Your task to perform on an android device: Open my contact list Image 0: 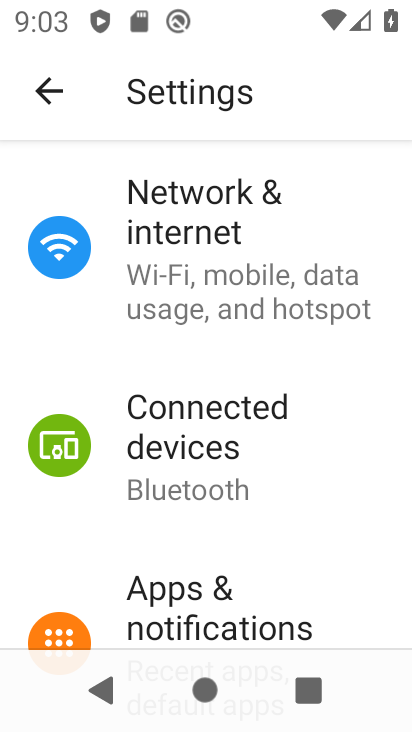
Step 0: press home button
Your task to perform on an android device: Open my contact list Image 1: 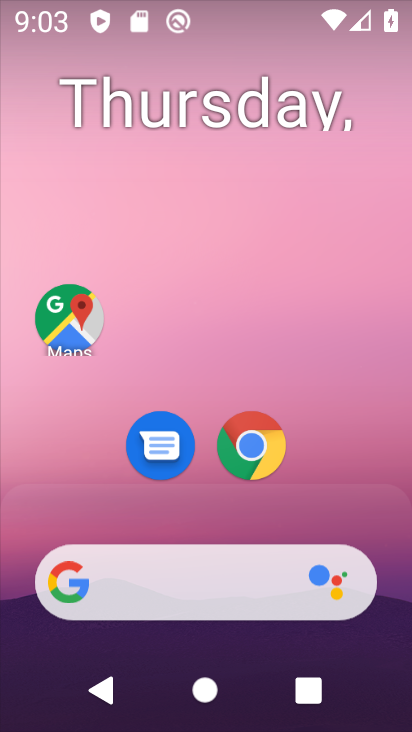
Step 1: drag from (216, 532) to (182, 137)
Your task to perform on an android device: Open my contact list Image 2: 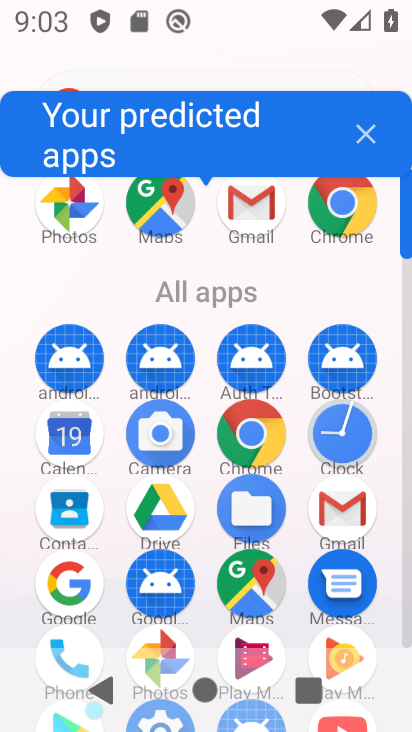
Step 2: drag from (217, 315) to (209, 152)
Your task to perform on an android device: Open my contact list Image 3: 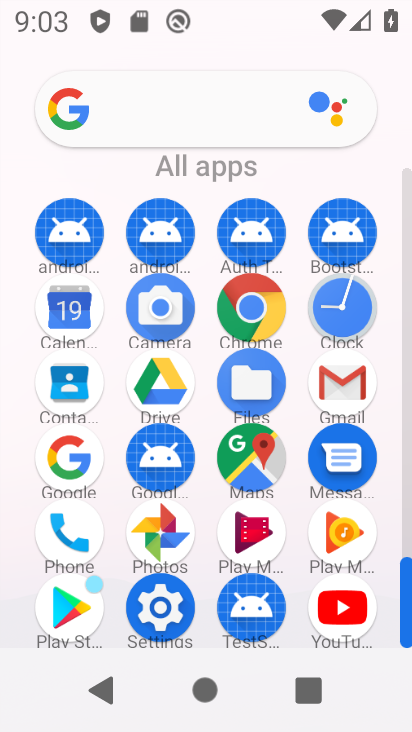
Step 3: click (79, 386)
Your task to perform on an android device: Open my contact list Image 4: 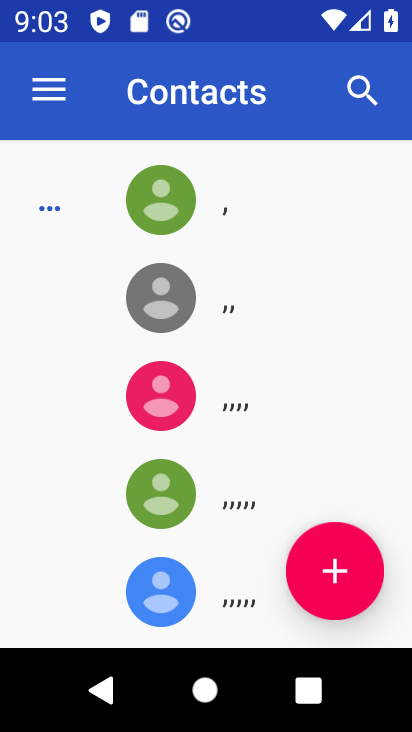
Step 4: drag from (181, 534) to (209, 240)
Your task to perform on an android device: Open my contact list Image 5: 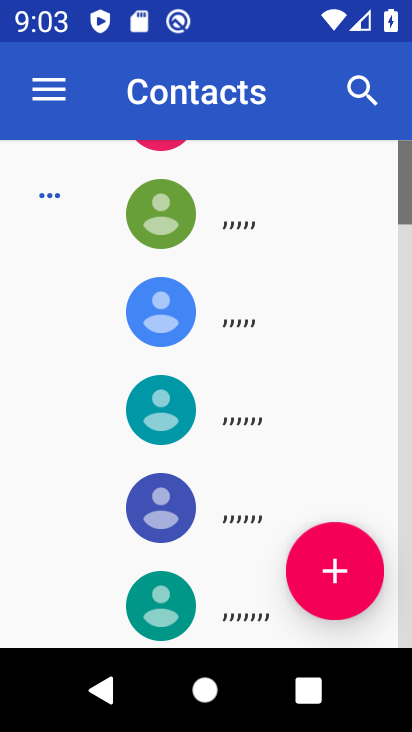
Step 5: drag from (151, 636) to (169, 196)
Your task to perform on an android device: Open my contact list Image 6: 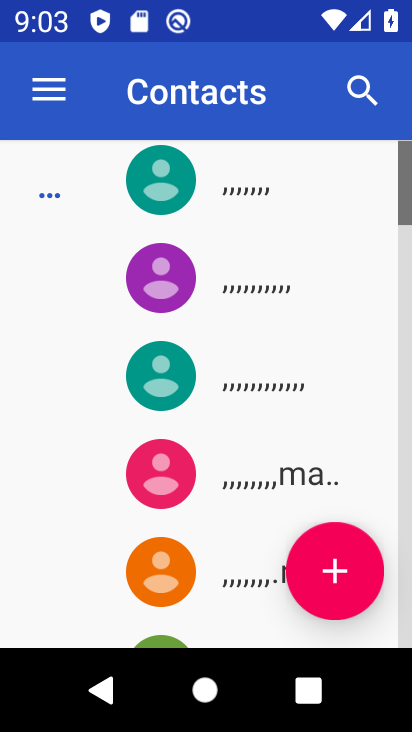
Step 6: drag from (182, 541) to (187, 103)
Your task to perform on an android device: Open my contact list Image 7: 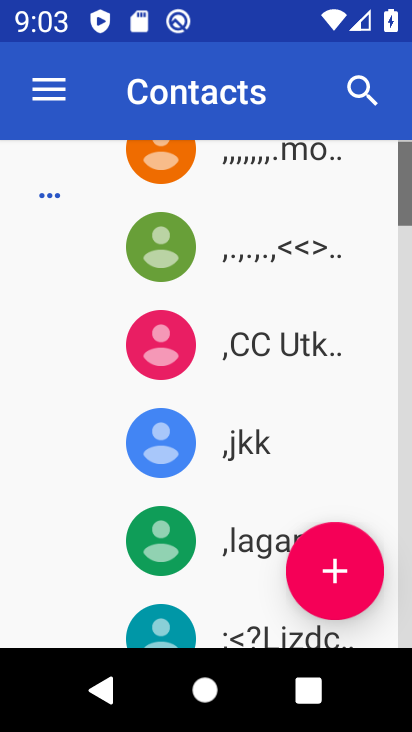
Step 7: drag from (187, 528) to (205, 178)
Your task to perform on an android device: Open my contact list Image 8: 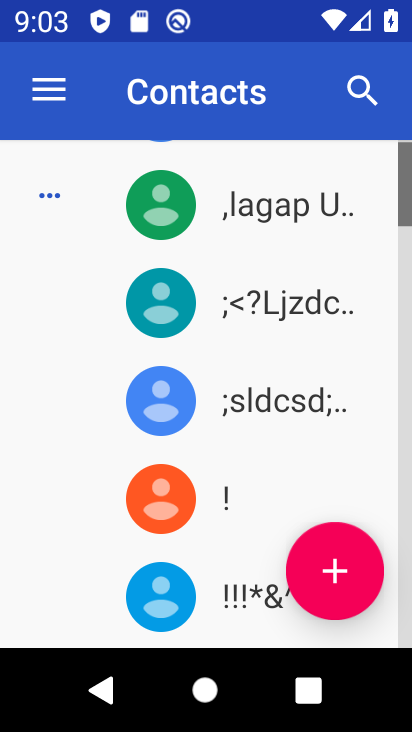
Step 8: drag from (189, 499) to (212, 170)
Your task to perform on an android device: Open my contact list Image 9: 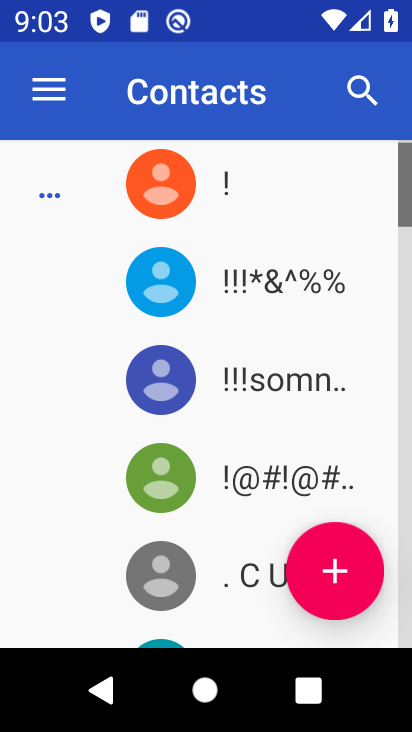
Step 9: drag from (213, 509) to (229, 223)
Your task to perform on an android device: Open my contact list Image 10: 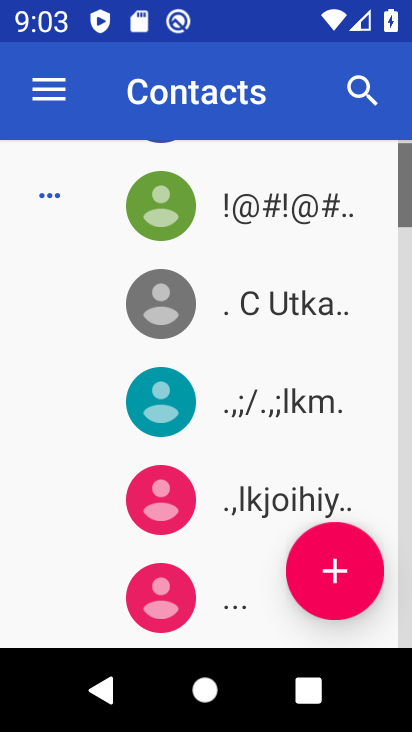
Step 10: drag from (250, 473) to (245, 321)
Your task to perform on an android device: Open my contact list Image 11: 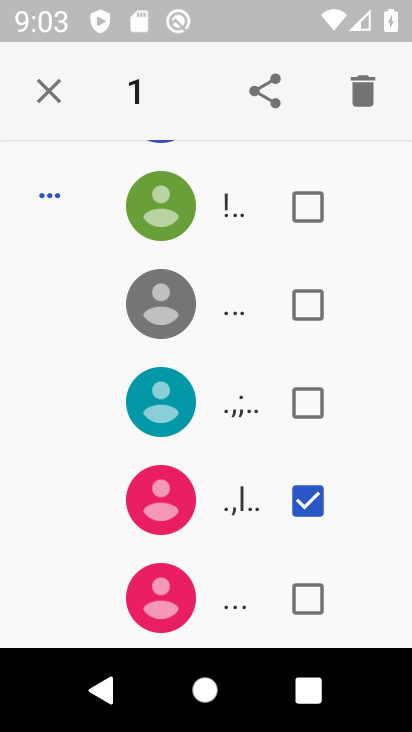
Step 11: click (61, 97)
Your task to perform on an android device: Open my contact list Image 12: 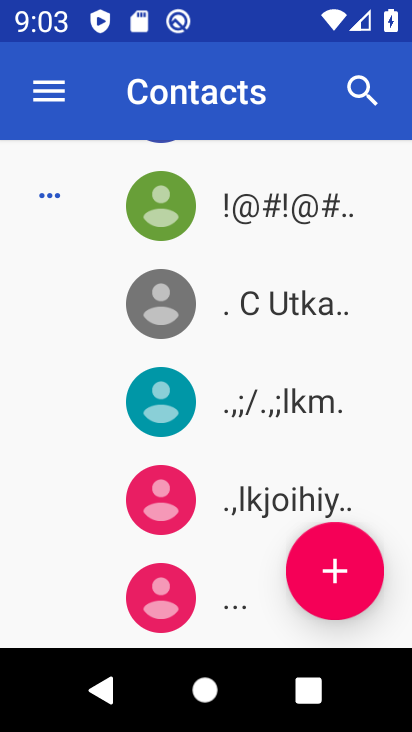
Step 12: task complete